Your task to perform on an android device: turn on the 24-hour format for clock Image 0: 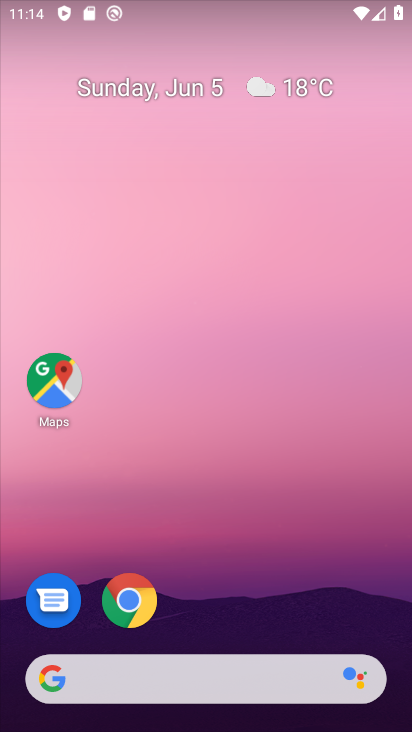
Step 0: drag from (211, 726) to (203, 61)
Your task to perform on an android device: turn on the 24-hour format for clock Image 1: 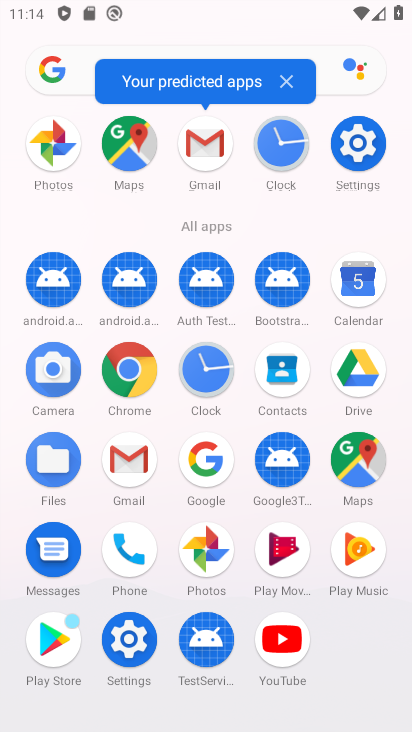
Step 1: click (203, 364)
Your task to perform on an android device: turn on the 24-hour format for clock Image 2: 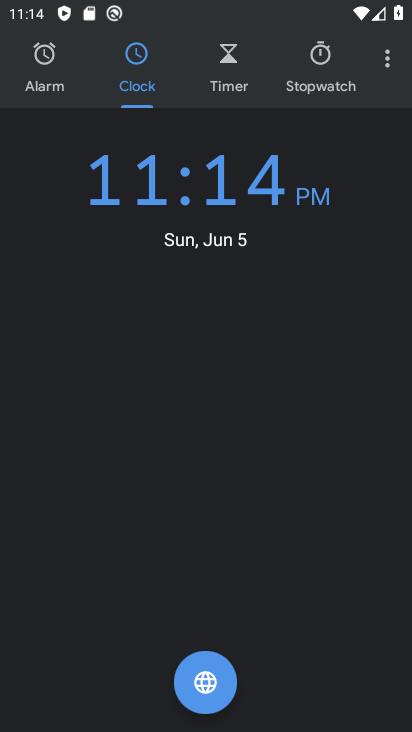
Step 2: click (389, 63)
Your task to perform on an android device: turn on the 24-hour format for clock Image 3: 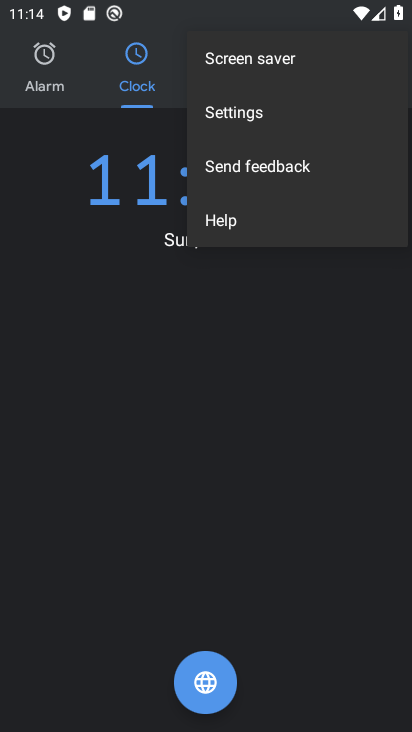
Step 3: click (227, 108)
Your task to perform on an android device: turn on the 24-hour format for clock Image 4: 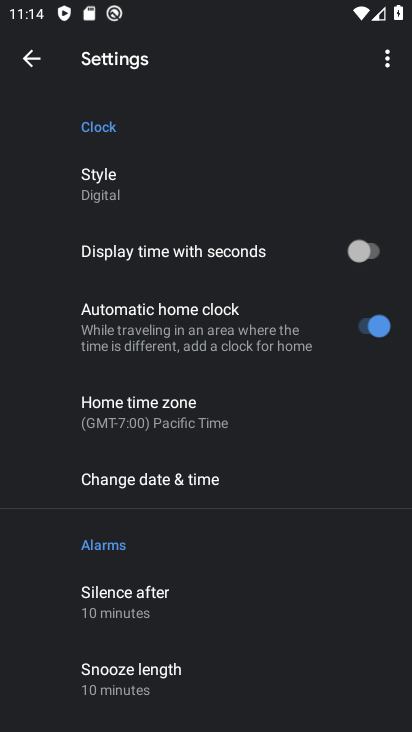
Step 4: click (117, 479)
Your task to perform on an android device: turn on the 24-hour format for clock Image 5: 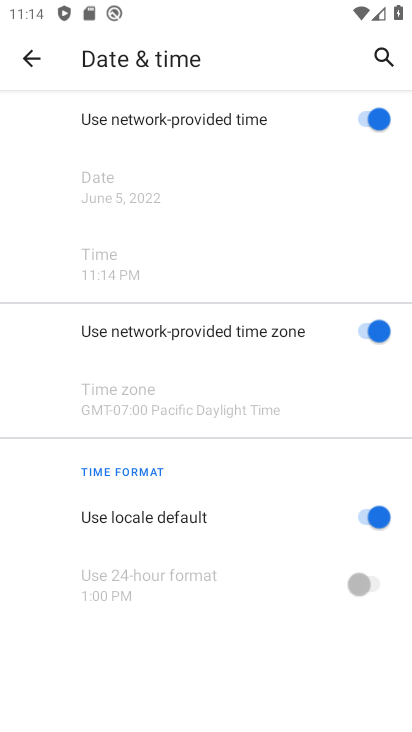
Step 5: click (361, 511)
Your task to perform on an android device: turn on the 24-hour format for clock Image 6: 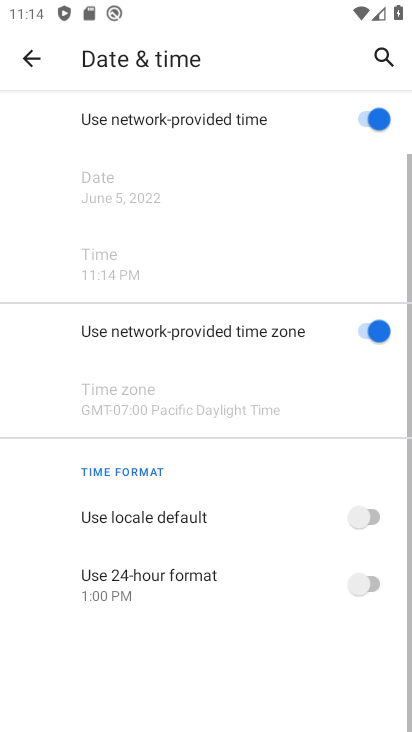
Step 6: click (369, 586)
Your task to perform on an android device: turn on the 24-hour format for clock Image 7: 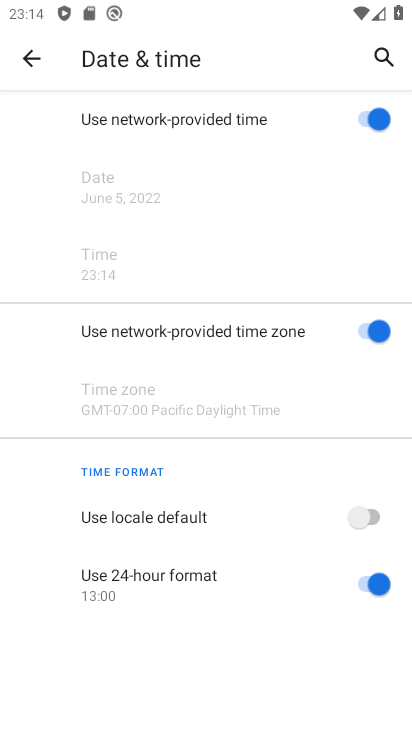
Step 7: task complete